Your task to perform on an android device: Turn on the flashlight Image 0: 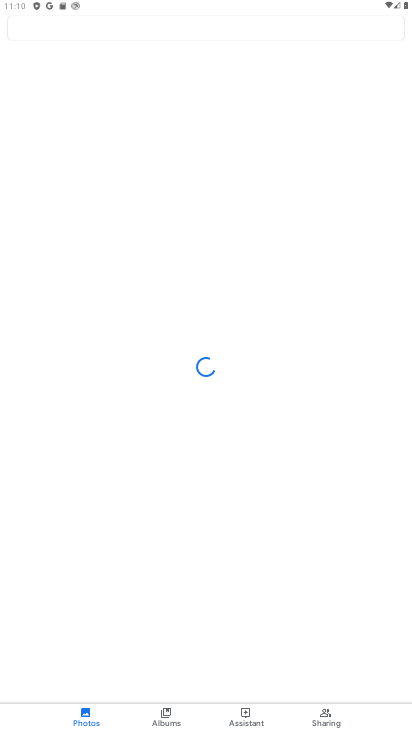
Step 0: press home button
Your task to perform on an android device: Turn on the flashlight Image 1: 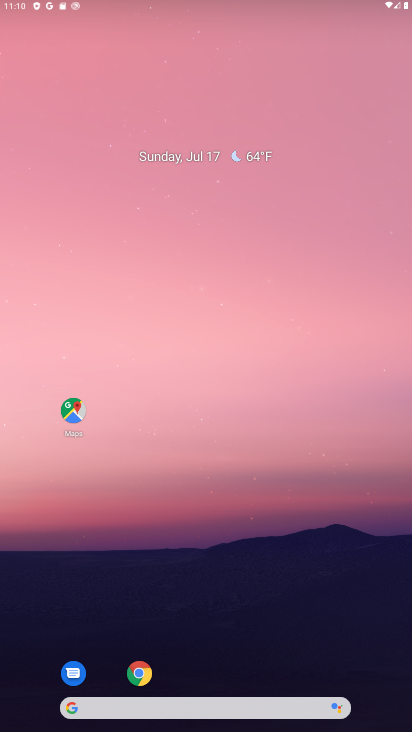
Step 1: drag from (231, 661) to (237, 75)
Your task to perform on an android device: Turn on the flashlight Image 2: 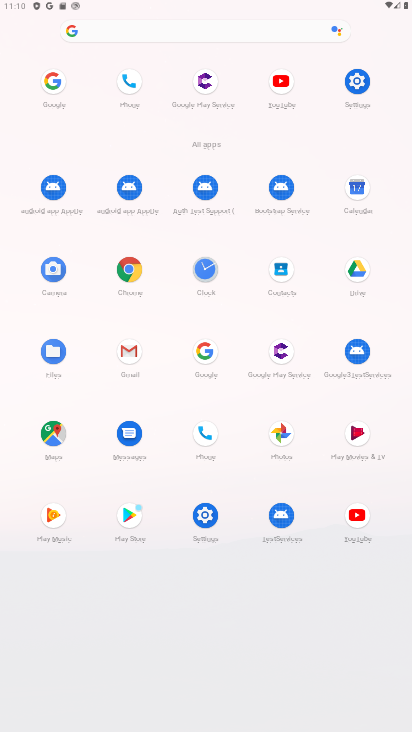
Step 2: click (205, 513)
Your task to perform on an android device: Turn on the flashlight Image 3: 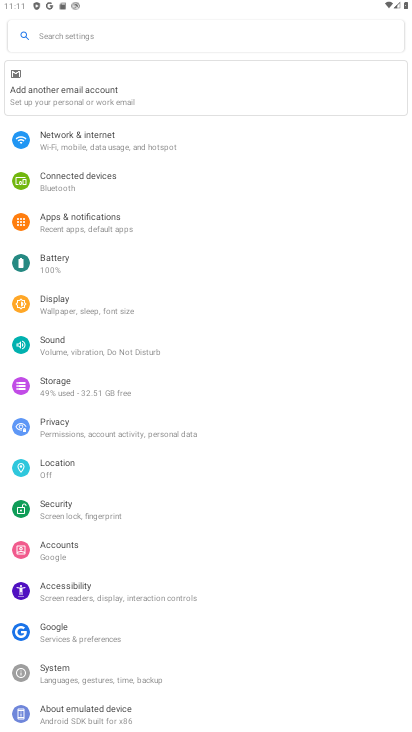
Step 3: click (108, 28)
Your task to perform on an android device: Turn on the flashlight Image 4: 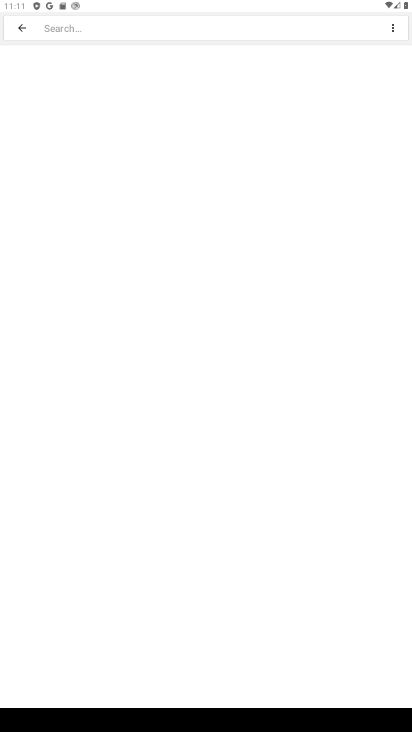
Step 4: type "flash"
Your task to perform on an android device: Turn on the flashlight Image 5: 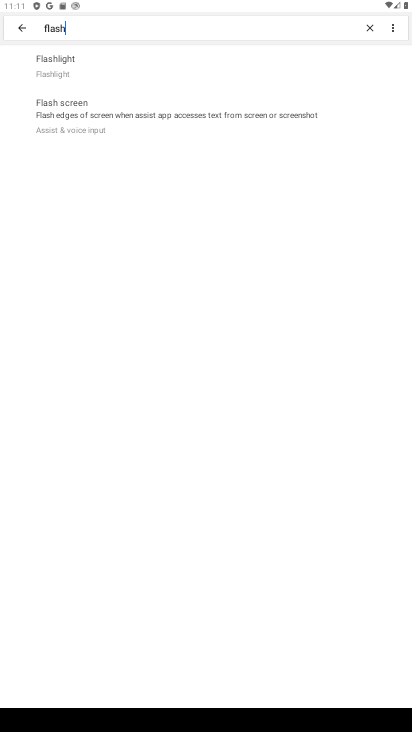
Step 5: task complete